Your task to perform on an android device: Open sound settings Image 0: 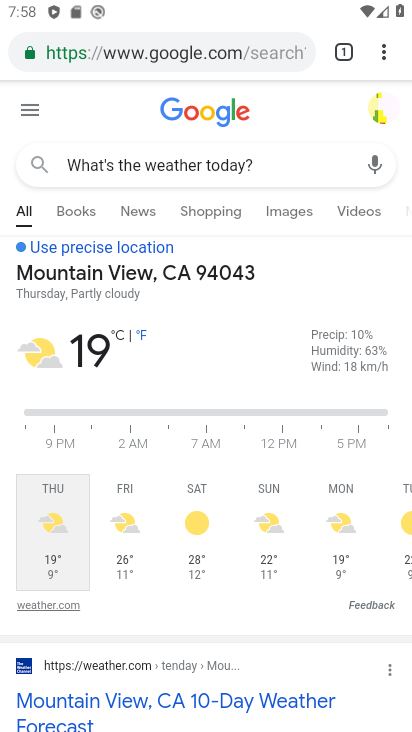
Step 0: press back button
Your task to perform on an android device: Open sound settings Image 1: 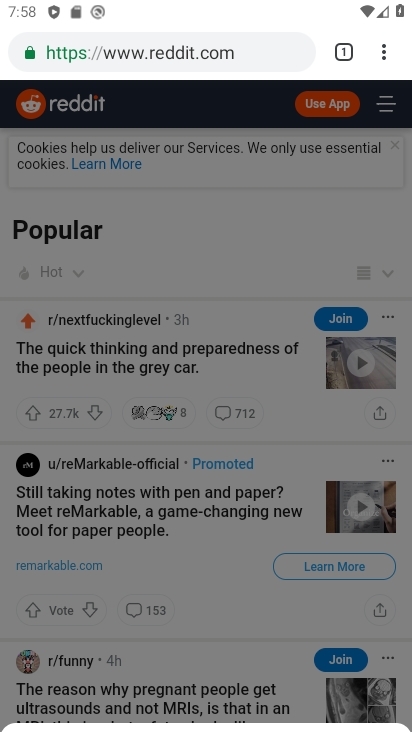
Step 1: press back button
Your task to perform on an android device: Open sound settings Image 2: 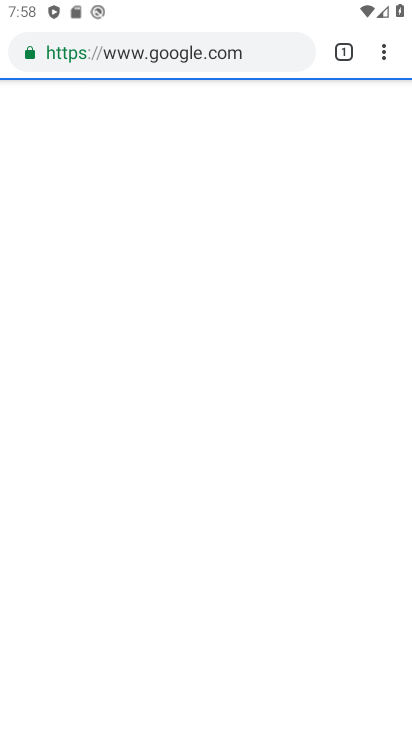
Step 2: press back button
Your task to perform on an android device: Open sound settings Image 3: 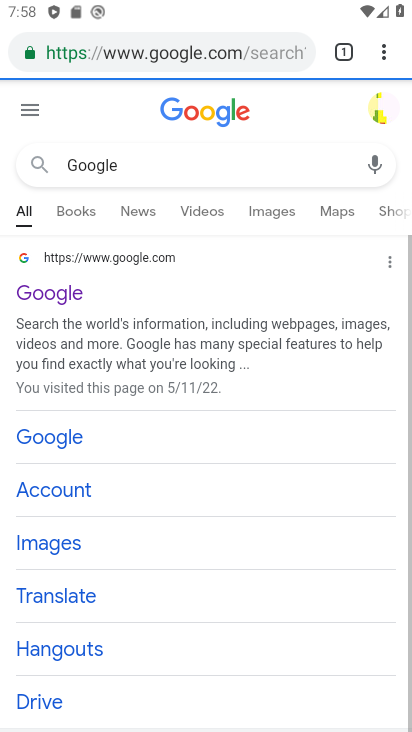
Step 3: press home button
Your task to perform on an android device: Open sound settings Image 4: 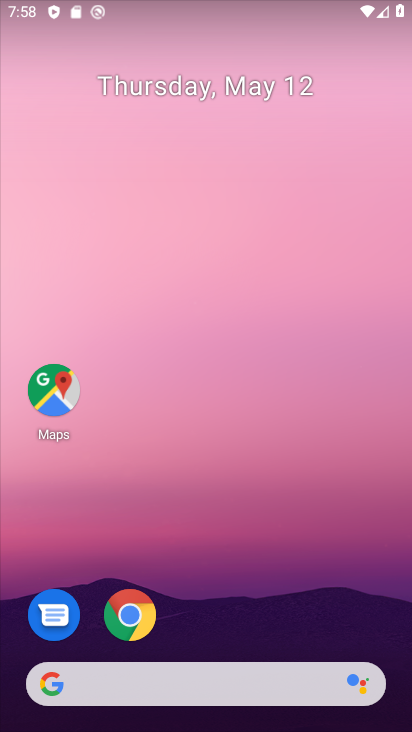
Step 4: drag from (261, 522) to (245, 1)
Your task to perform on an android device: Open sound settings Image 5: 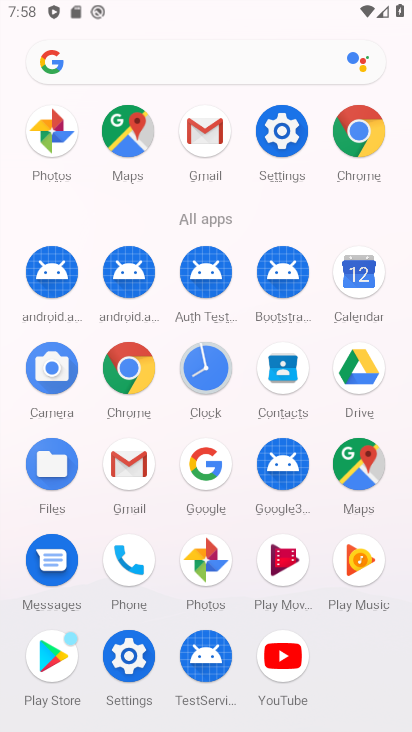
Step 5: drag from (9, 522) to (8, 280)
Your task to perform on an android device: Open sound settings Image 6: 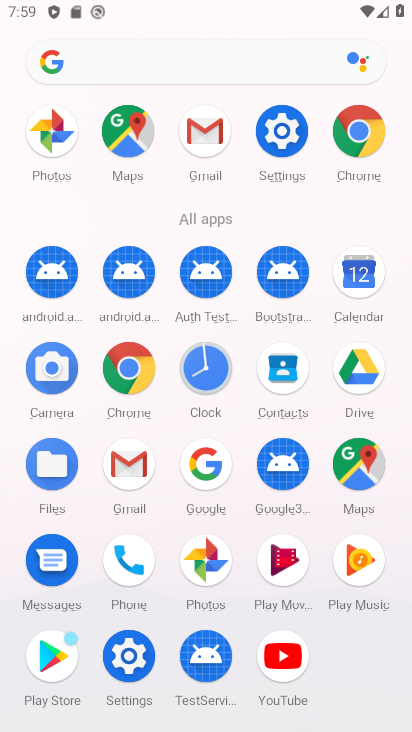
Step 6: click (126, 655)
Your task to perform on an android device: Open sound settings Image 7: 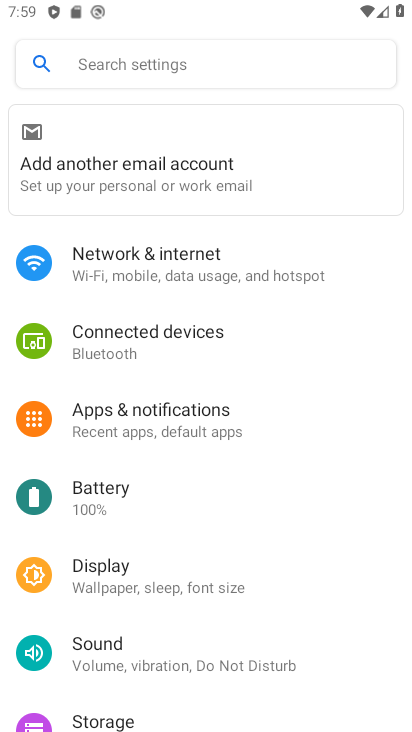
Step 7: click (181, 653)
Your task to perform on an android device: Open sound settings Image 8: 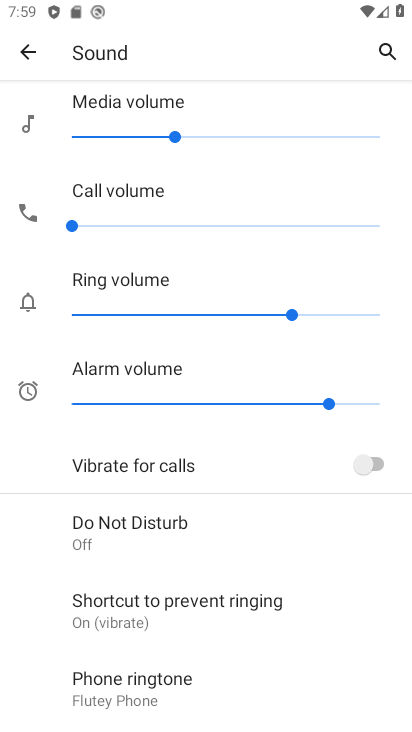
Step 8: drag from (246, 545) to (256, 156)
Your task to perform on an android device: Open sound settings Image 9: 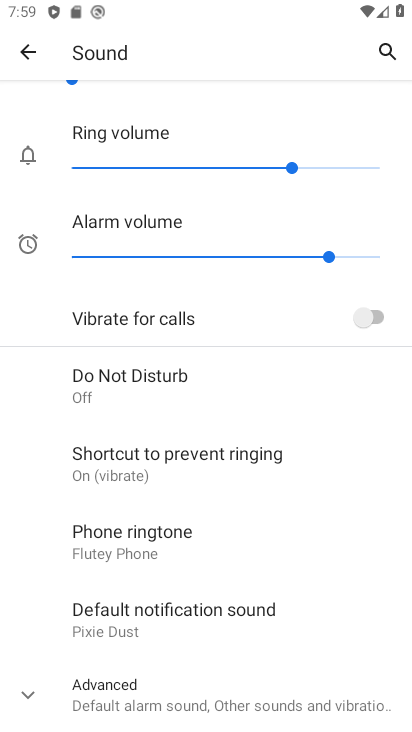
Step 9: click (38, 691)
Your task to perform on an android device: Open sound settings Image 10: 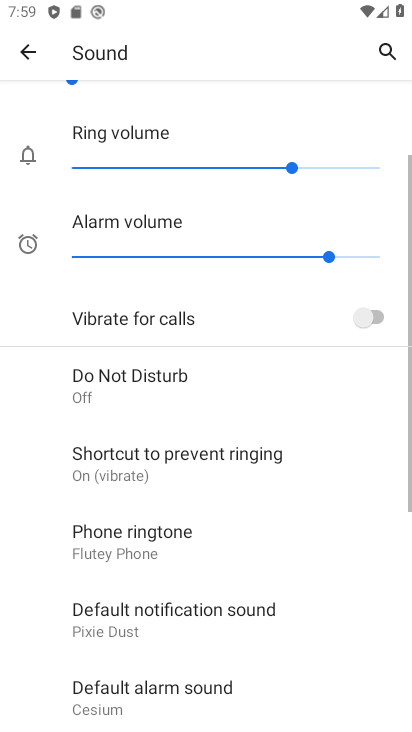
Step 10: task complete